Your task to perform on an android device: open sync settings in chrome Image 0: 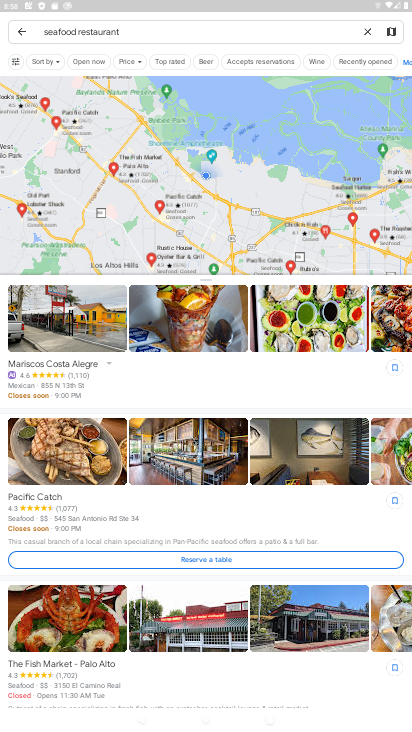
Step 0: press home button
Your task to perform on an android device: open sync settings in chrome Image 1: 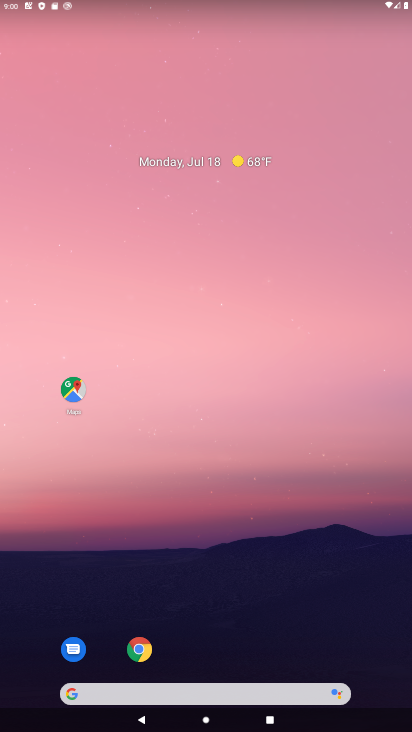
Step 1: click (130, 651)
Your task to perform on an android device: open sync settings in chrome Image 2: 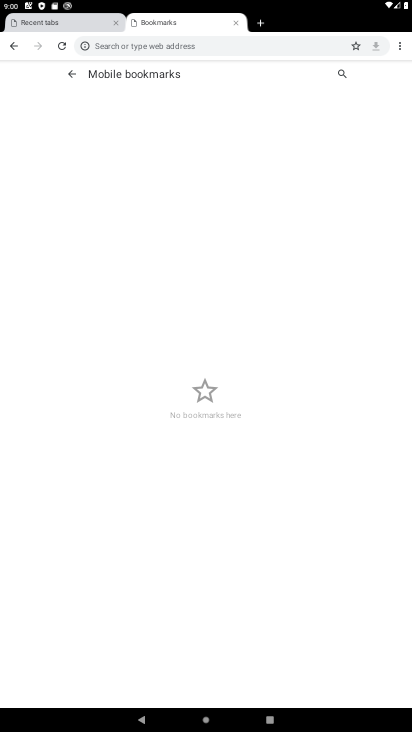
Step 2: click (403, 38)
Your task to perform on an android device: open sync settings in chrome Image 3: 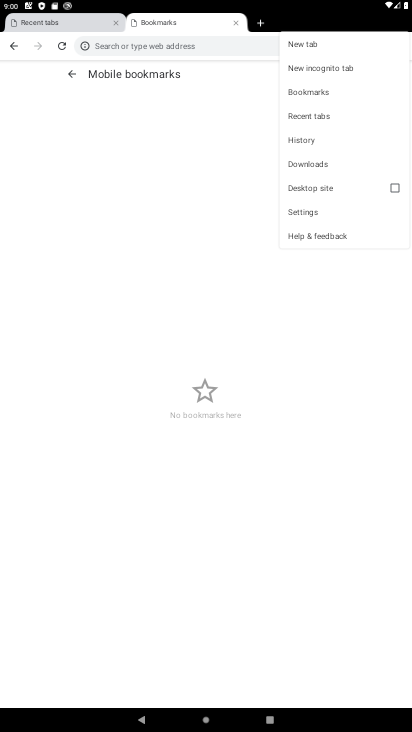
Step 3: click (315, 211)
Your task to perform on an android device: open sync settings in chrome Image 4: 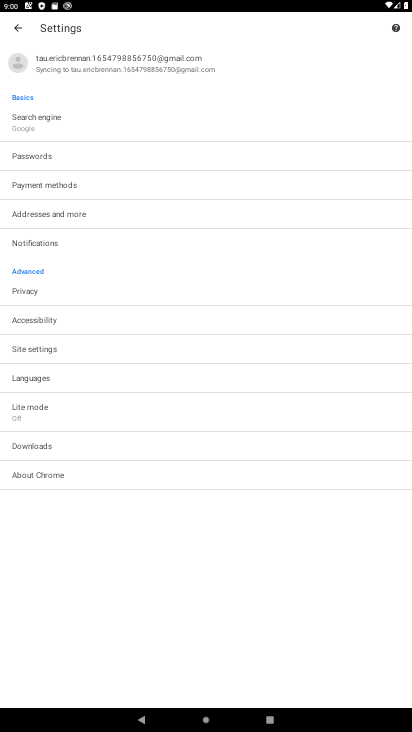
Step 4: click (118, 58)
Your task to perform on an android device: open sync settings in chrome Image 5: 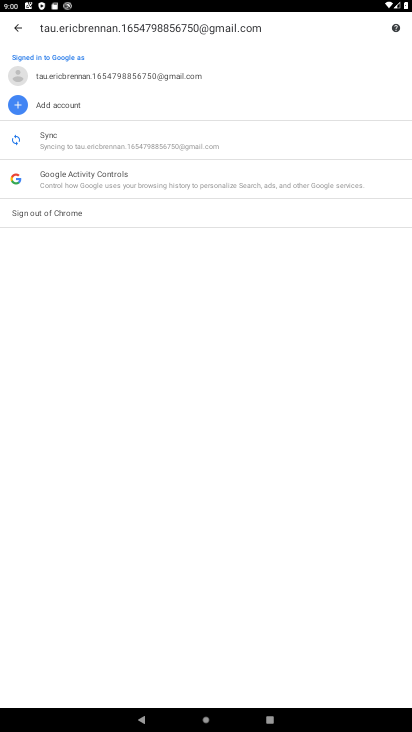
Step 5: task complete